Your task to perform on an android device: Go to Google maps Image 0: 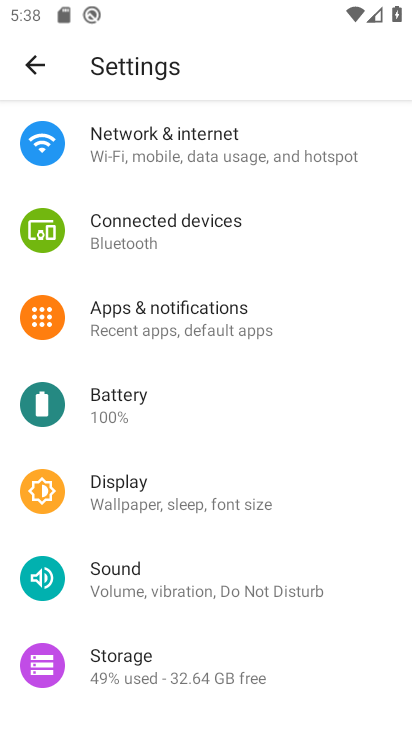
Step 0: press home button
Your task to perform on an android device: Go to Google maps Image 1: 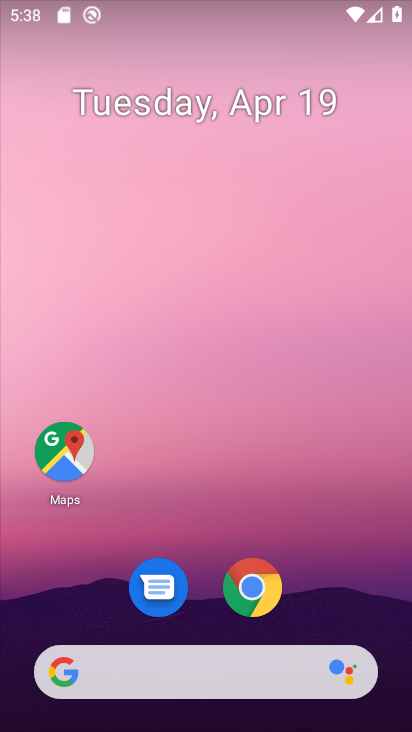
Step 1: click (68, 436)
Your task to perform on an android device: Go to Google maps Image 2: 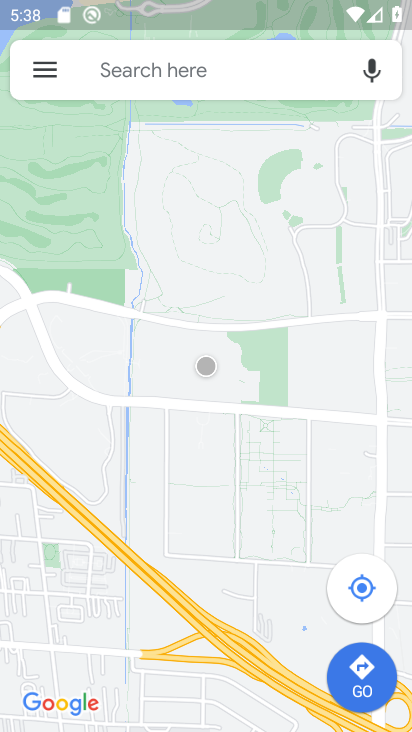
Step 2: click (60, 74)
Your task to perform on an android device: Go to Google maps Image 3: 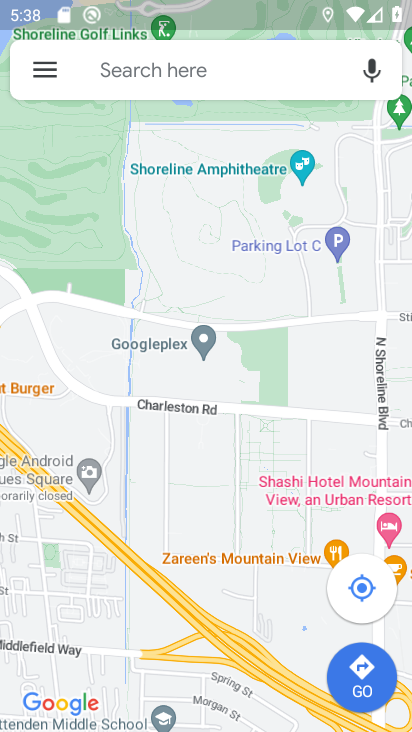
Step 3: task complete